Your task to perform on an android device: Open the phone app and click the voicemail tab. Image 0: 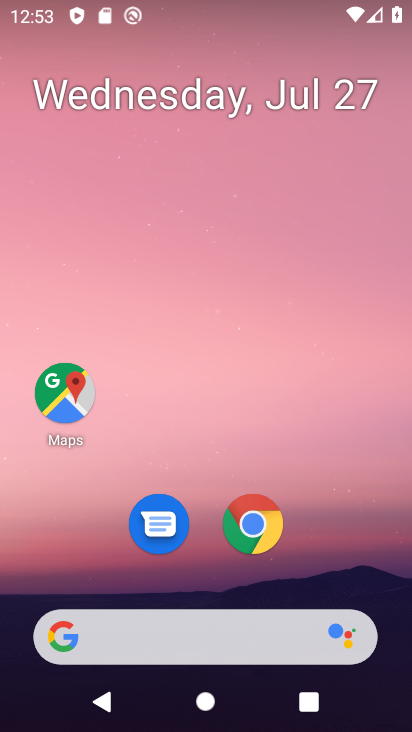
Step 0: drag from (312, 537) to (331, 76)
Your task to perform on an android device: Open the phone app and click the voicemail tab. Image 1: 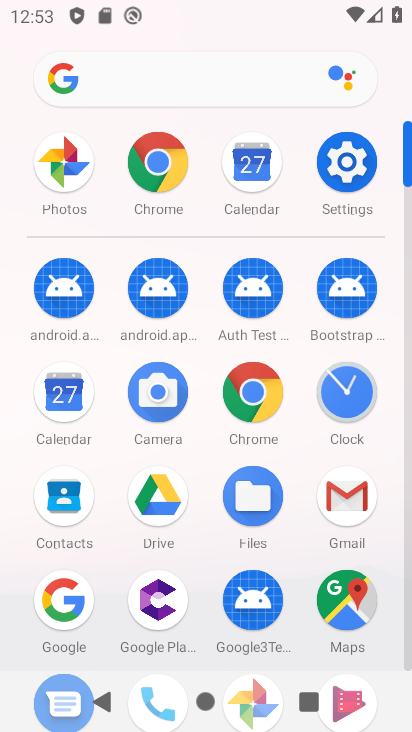
Step 1: drag from (216, 481) to (262, 38)
Your task to perform on an android device: Open the phone app and click the voicemail tab. Image 2: 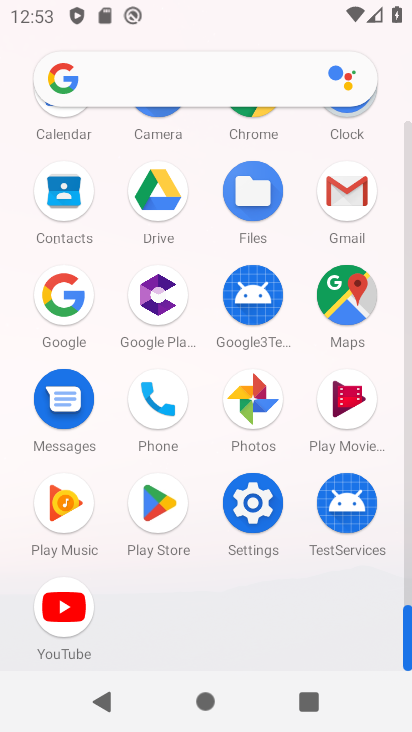
Step 2: click (160, 409)
Your task to perform on an android device: Open the phone app and click the voicemail tab. Image 3: 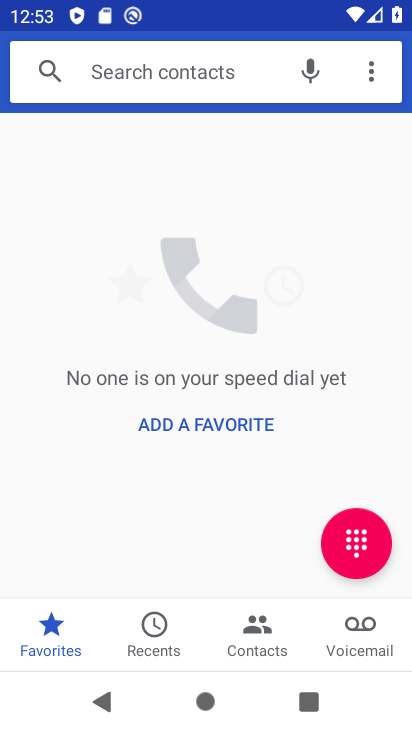
Step 3: click (359, 643)
Your task to perform on an android device: Open the phone app and click the voicemail tab. Image 4: 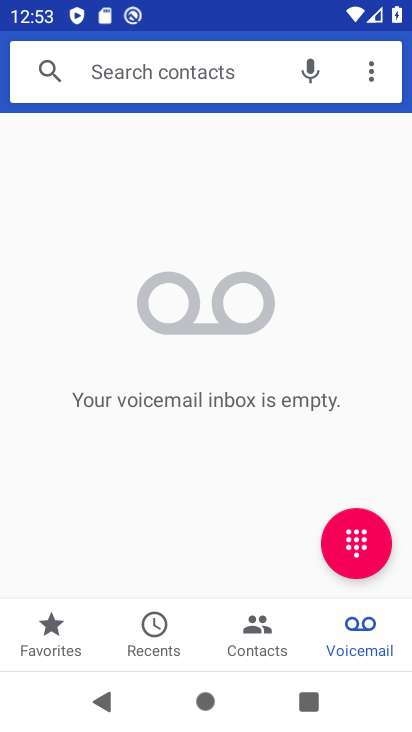
Step 4: task complete